Your task to perform on an android device: When is my next appointment? Image 0: 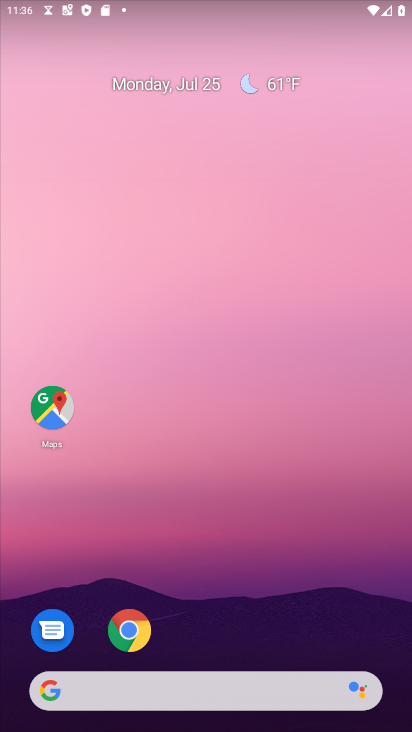
Step 0: drag from (277, 626) to (214, 78)
Your task to perform on an android device: When is my next appointment? Image 1: 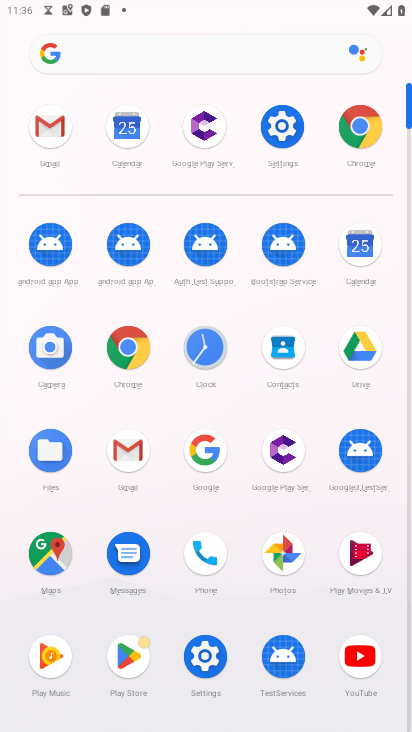
Step 1: click (359, 243)
Your task to perform on an android device: When is my next appointment? Image 2: 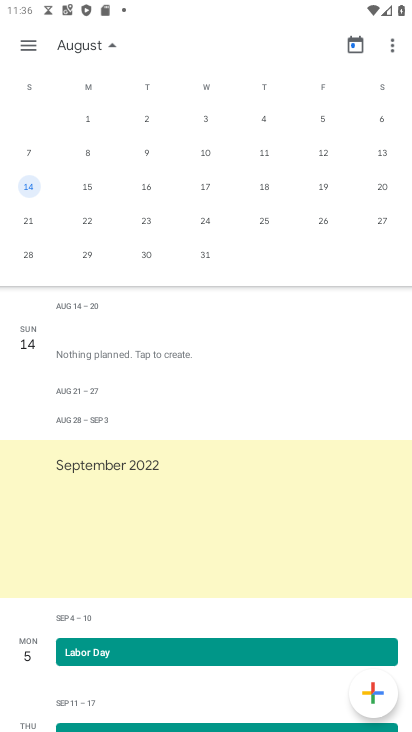
Step 2: drag from (54, 190) to (330, 182)
Your task to perform on an android device: When is my next appointment? Image 3: 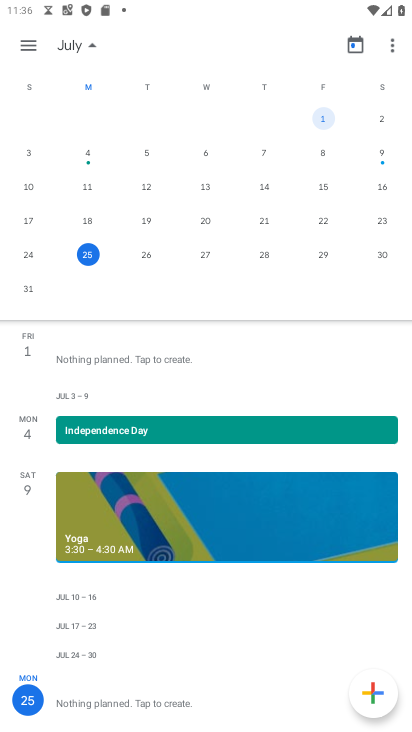
Step 3: click (84, 250)
Your task to perform on an android device: When is my next appointment? Image 4: 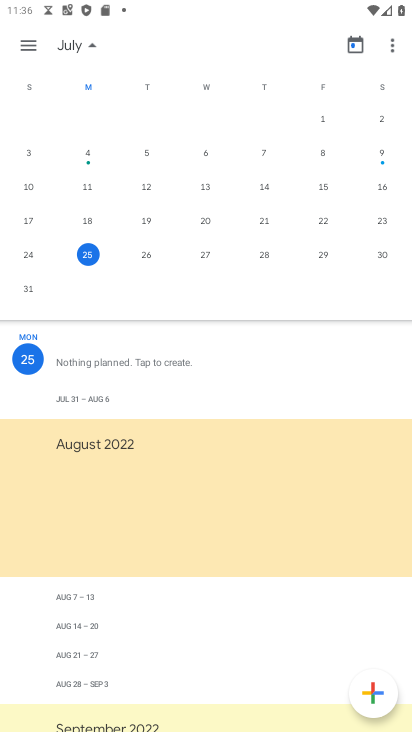
Step 4: task complete